Your task to perform on an android device: turn on wifi Image 0: 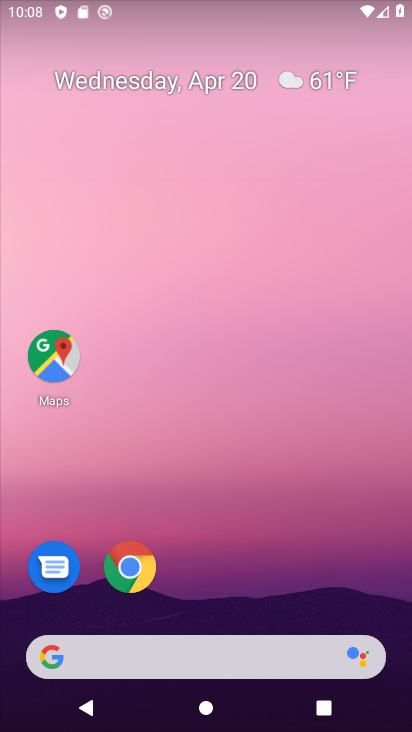
Step 0: drag from (83, 4) to (148, 548)
Your task to perform on an android device: turn on wifi Image 1: 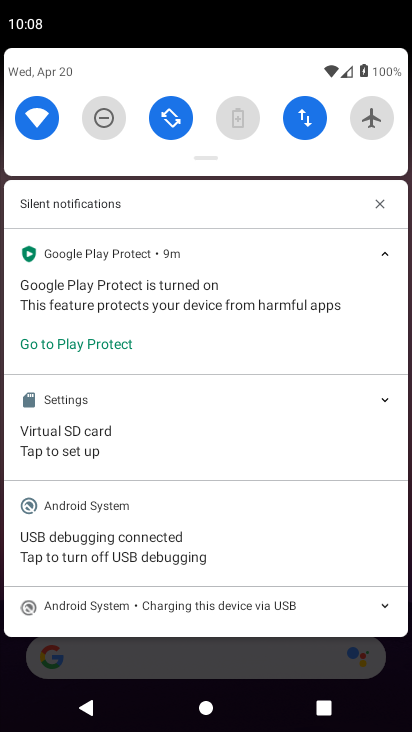
Step 1: task complete